Your task to perform on an android device: See recent photos Image 0: 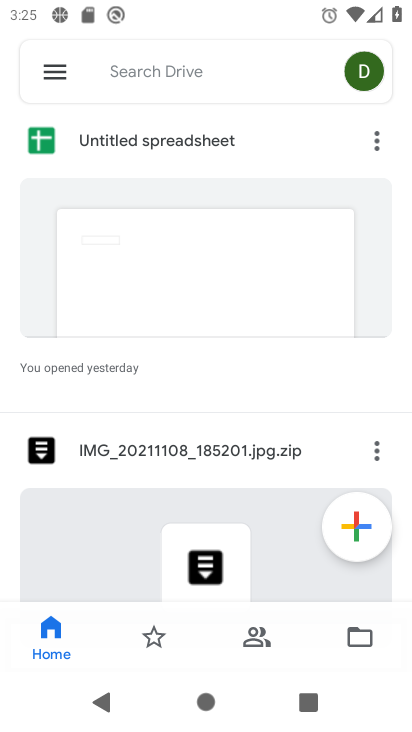
Step 0: press back button
Your task to perform on an android device: See recent photos Image 1: 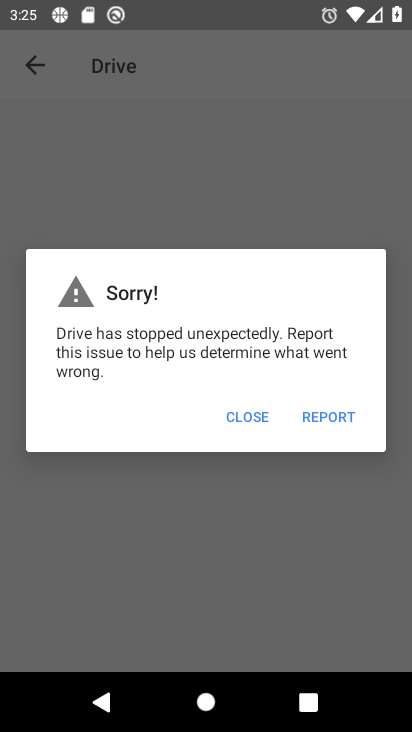
Step 1: press home button
Your task to perform on an android device: See recent photos Image 2: 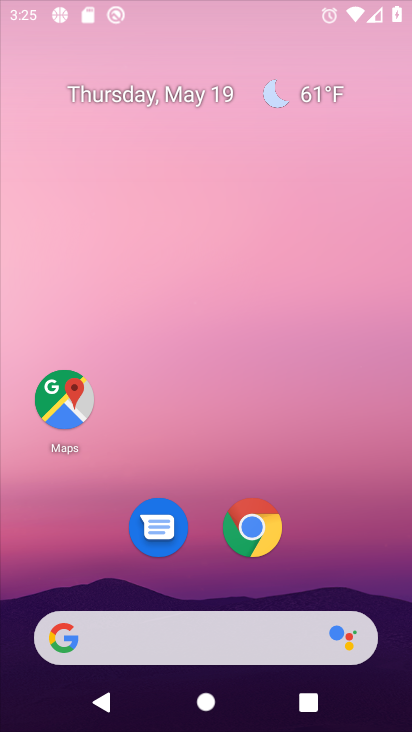
Step 2: drag from (240, 407) to (340, 0)
Your task to perform on an android device: See recent photos Image 3: 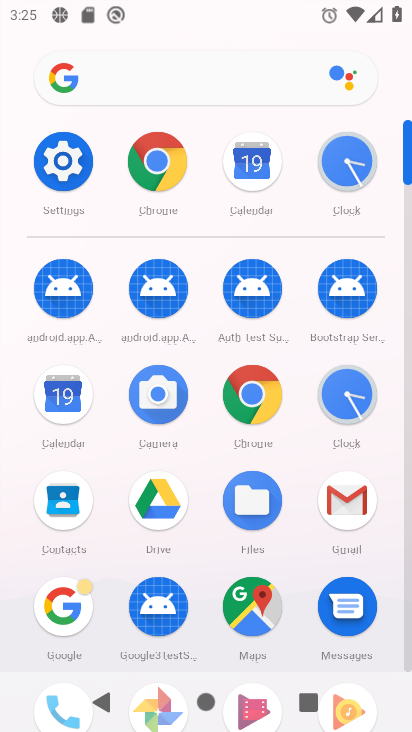
Step 3: drag from (150, 653) to (261, 207)
Your task to perform on an android device: See recent photos Image 4: 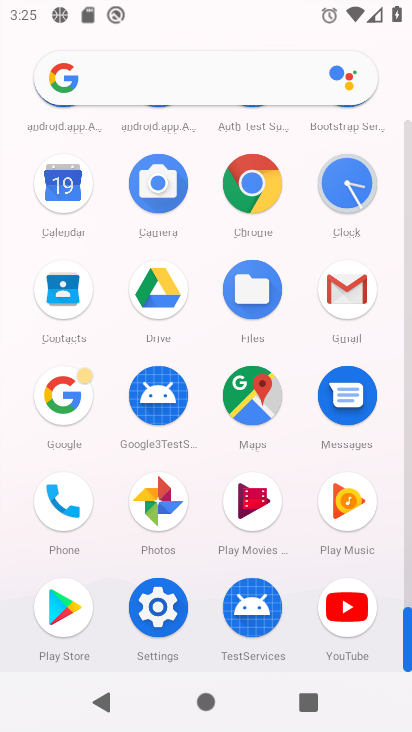
Step 4: click (159, 505)
Your task to perform on an android device: See recent photos Image 5: 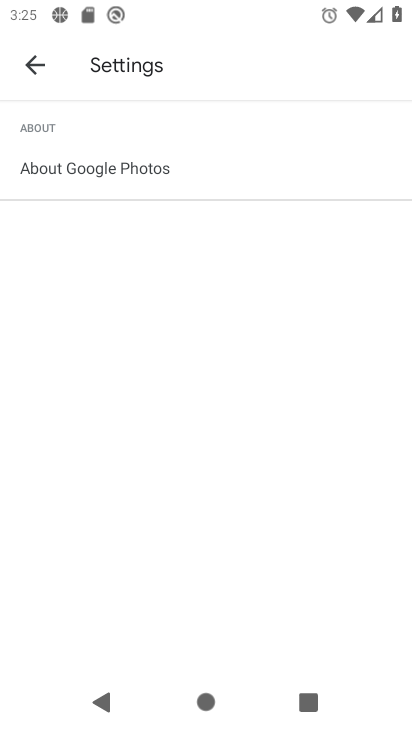
Step 5: click (27, 58)
Your task to perform on an android device: See recent photos Image 6: 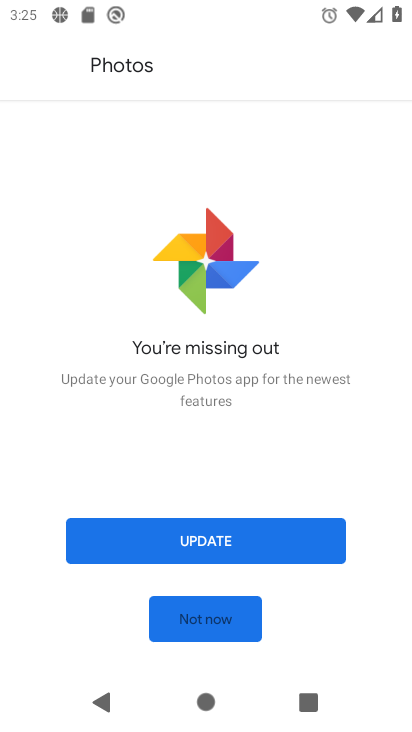
Step 6: click (179, 615)
Your task to perform on an android device: See recent photos Image 7: 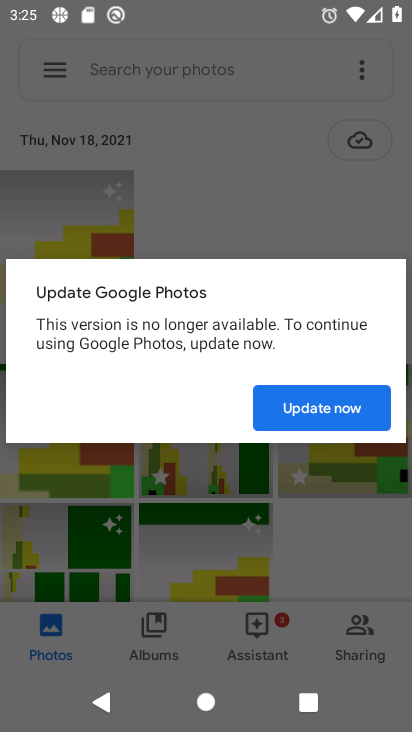
Step 7: click (307, 410)
Your task to perform on an android device: See recent photos Image 8: 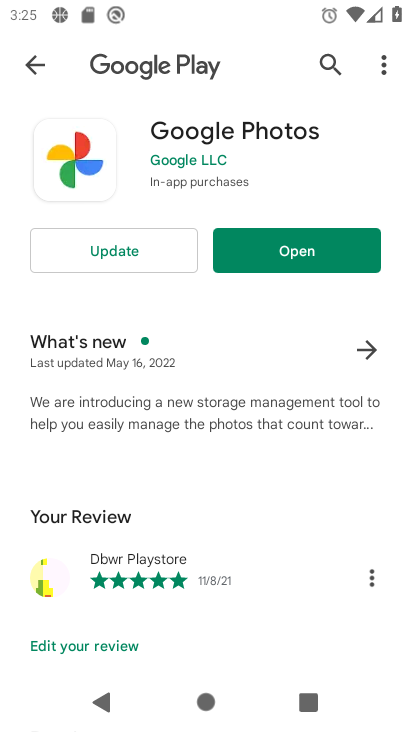
Step 8: click (306, 265)
Your task to perform on an android device: See recent photos Image 9: 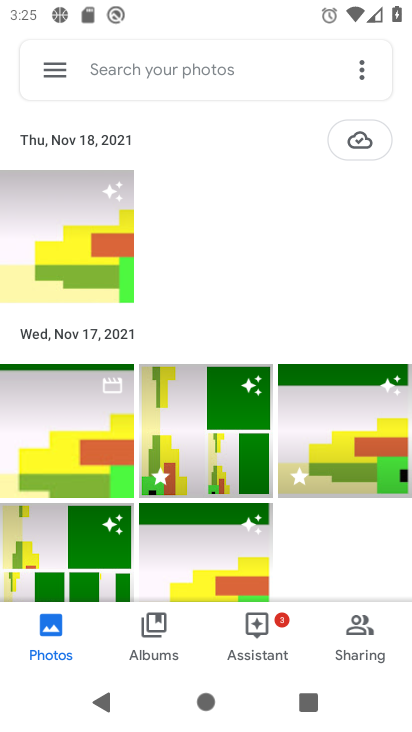
Step 9: task complete